Your task to perform on an android device: Open CNN.com Image 0: 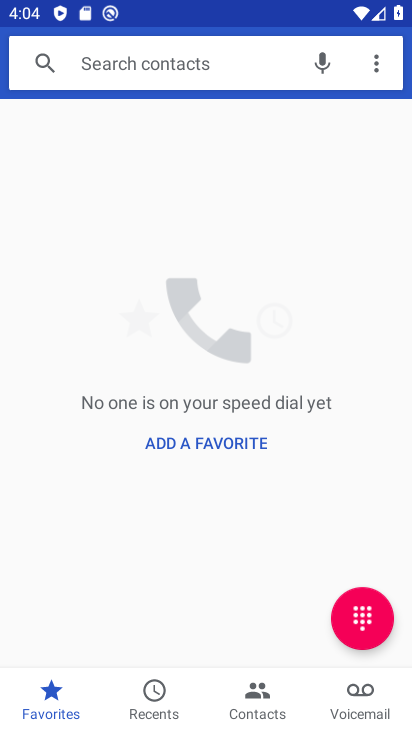
Step 0: press home button
Your task to perform on an android device: Open CNN.com Image 1: 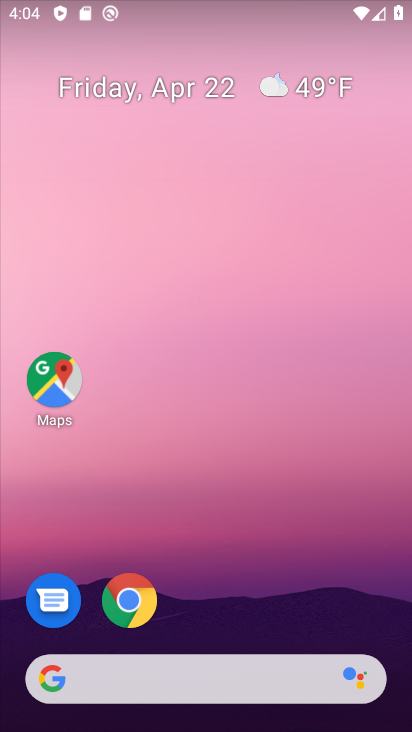
Step 1: click (126, 597)
Your task to perform on an android device: Open CNN.com Image 2: 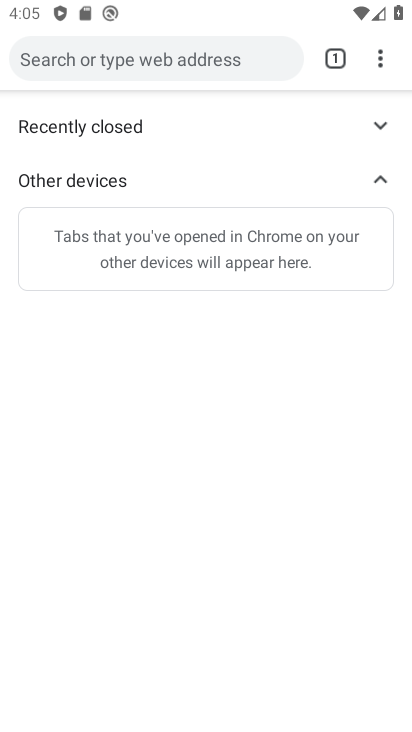
Step 2: click (234, 57)
Your task to perform on an android device: Open CNN.com Image 3: 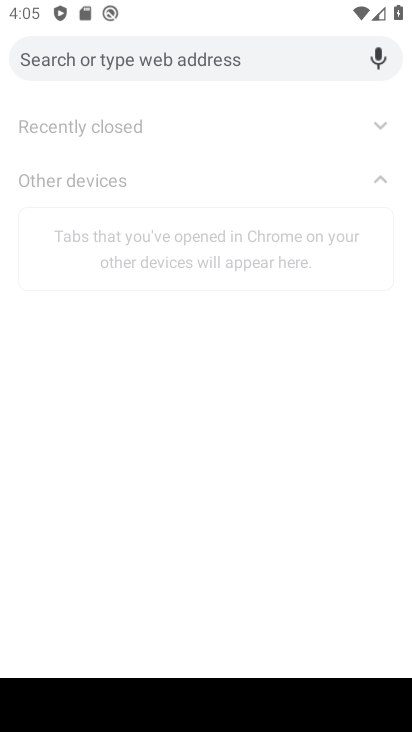
Step 3: type "CNN.com"
Your task to perform on an android device: Open CNN.com Image 4: 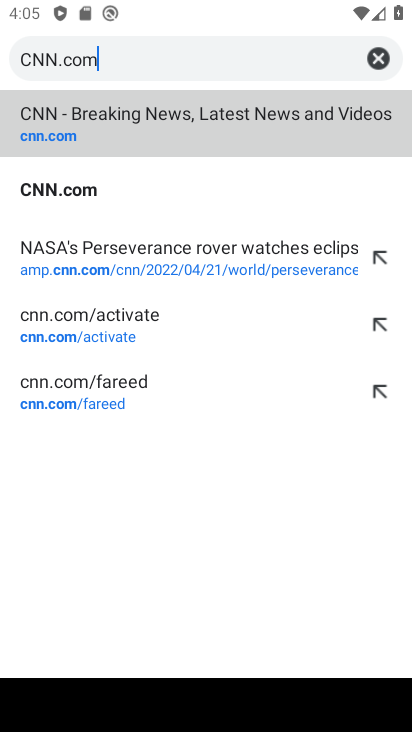
Step 4: click (50, 189)
Your task to perform on an android device: Open CNN.com Image 5: 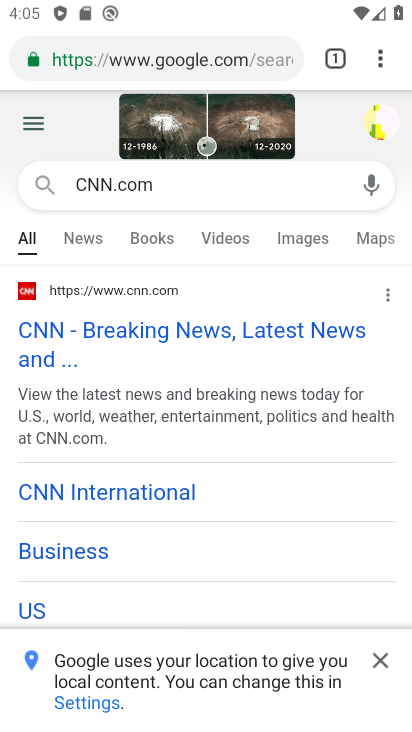
Step 5: task complete